Your task to perform on an android device: turn on sleep mode Image 0: 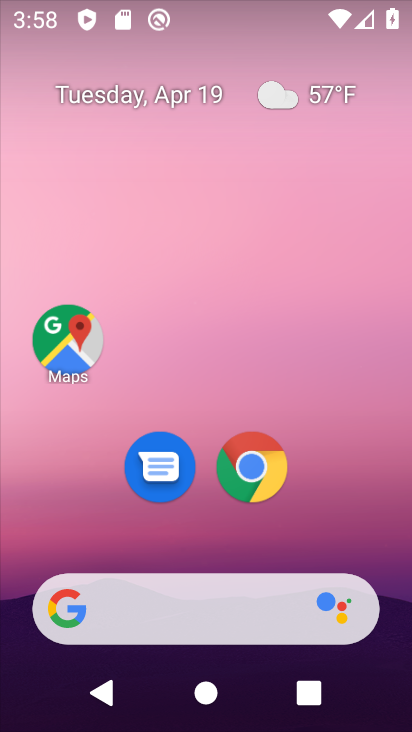
Step 0: drag from (243, 471) to (253, 12)
Your task to perform on an android device: turn on sleep mode Image 1: 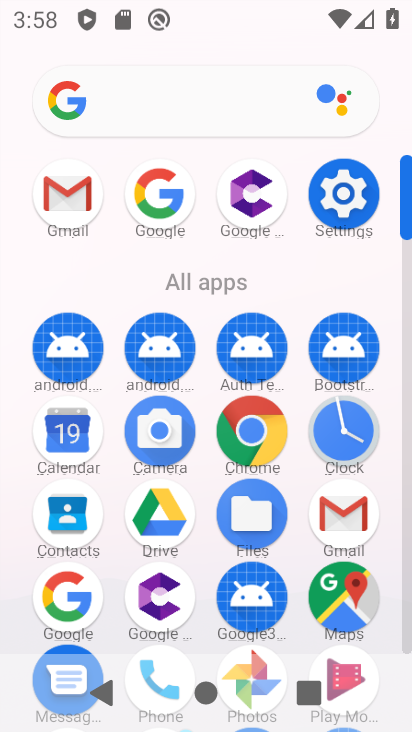
Step 1: click (354, 208)
Your task to perform on an android device: turn on sleep mode Image 2: 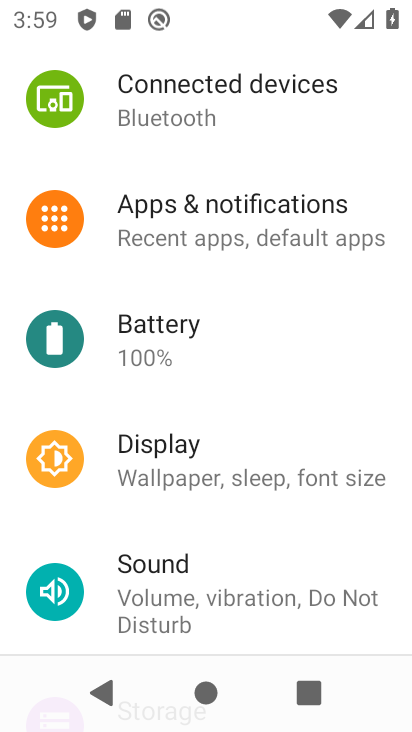
Step 2: click (220, 465)
Your task to perform on an android device: turn on sleep mode Image 3: 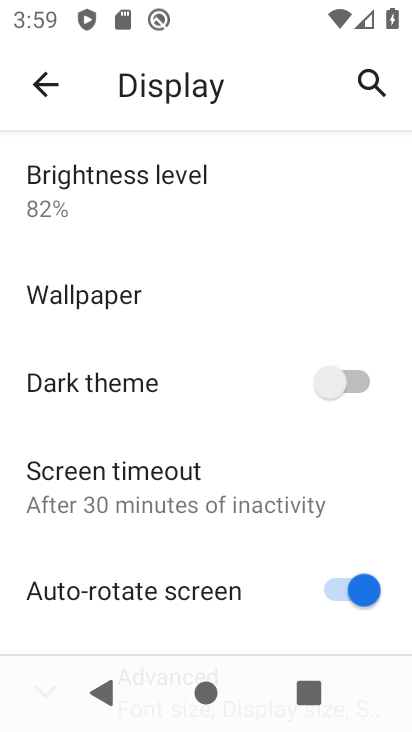
Step 3: task complete